Your task to perform on an android device: Open internet settings Image 0: 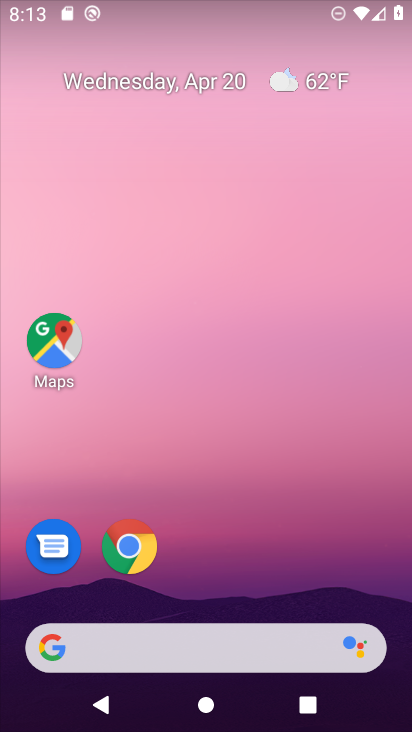
Step 0: drag from (234, 551) to (266, 85)
Your task to perform on an android device: Open internet settings Image 1: 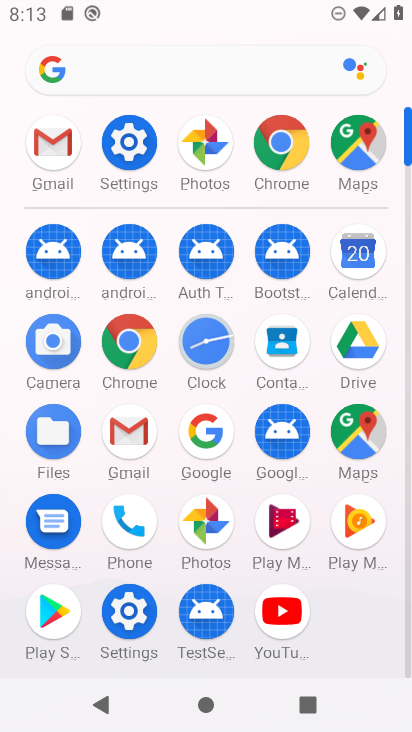
Step 1: click (129, 140)
Your task to perform on an android device: Open internet settings Image 2: 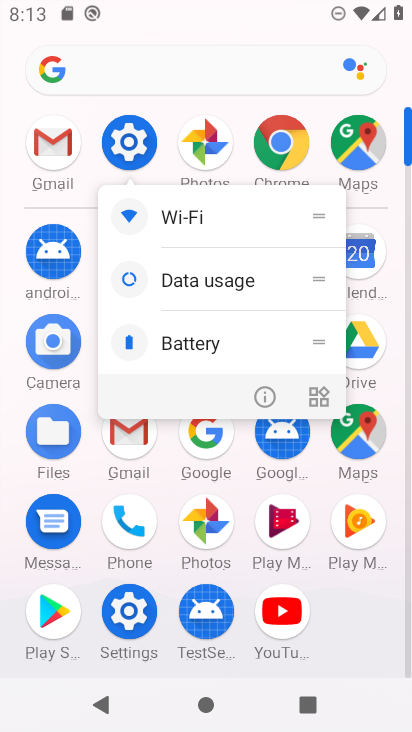
Step 2: click (129, 139)
Your task to perform on an android device: Open internet settings Image 3: 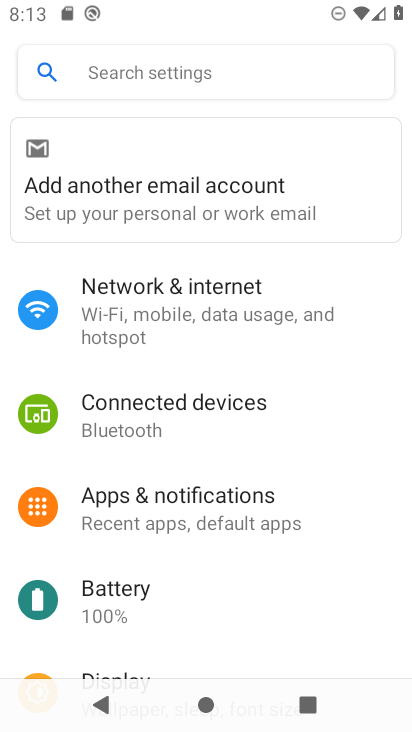
Step 3: click (179, 292)
Your task to perform on an android device: Open internet settings Image 4: 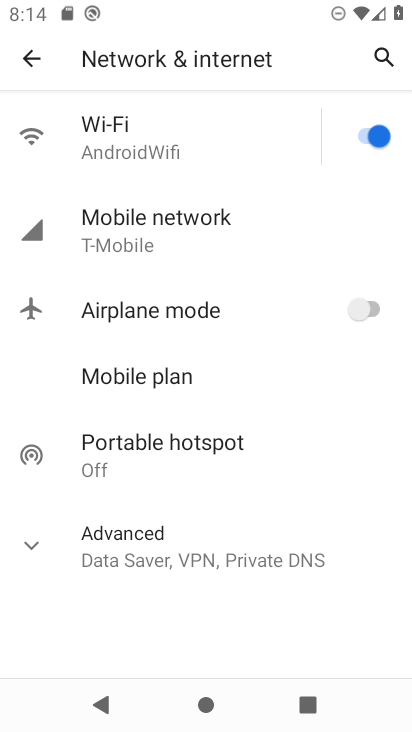
Step 4: task complete